Your task to perform on an android device: What's the latest news in space science? Image 0: 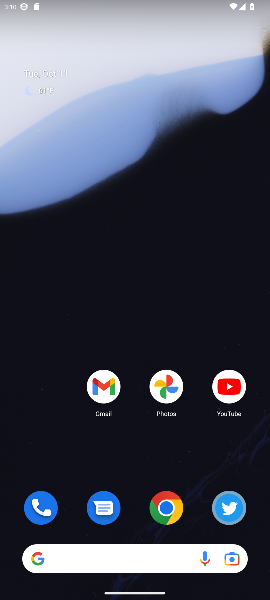
Step 0: click (169, 508)
Your task to perform on an android device: What's the latest news in space science? Image 1: 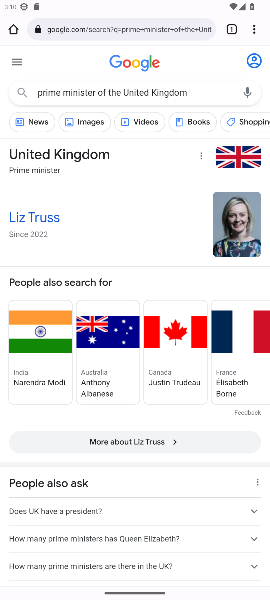
Step 1: click (161, 28)
Your task to perform on an android device: What's the latest news in space science? Image 2: 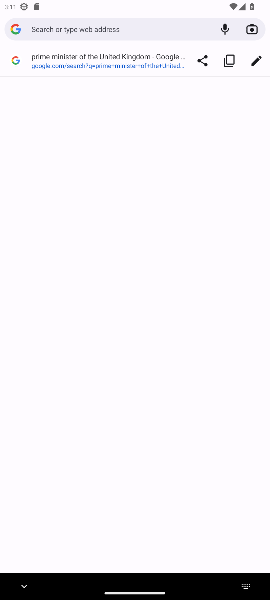
Step 2: type "latest news in space science"
Your task to perform on an android device: What's the latest news in space science? Image 3: 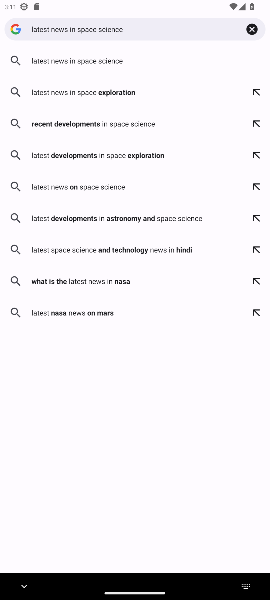
Step 3: press enter
Your task to perform on an android device: What's the latest news in space science? Image 4: 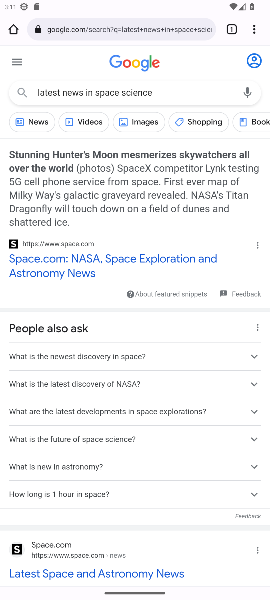
Step 4: click (29, 122)
Your task to perform on an android device: What's the latest news in space science? Image 5: 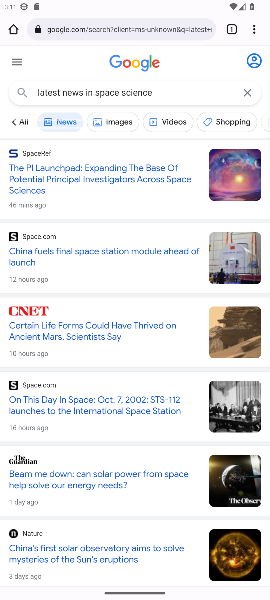
Step 5: task complete